Your task to perform on an android device: turn off picture-in-picture Image 0: 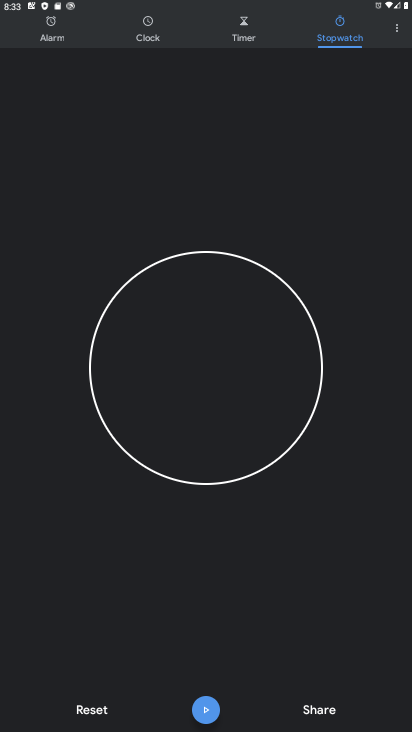
Step 0: press home button
Your task to perform on an android device: turn off picture-in-picture Image 1: 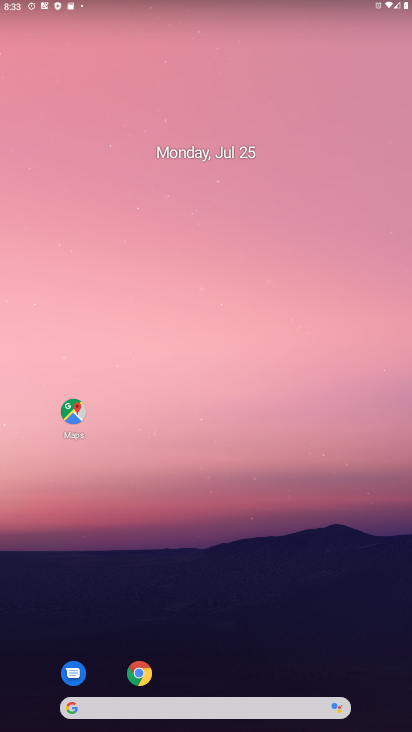
Step 1: drag from (313, 543) to (142, 11)
Your task to perform on an android device: turn off picture-in-picture Image 2: 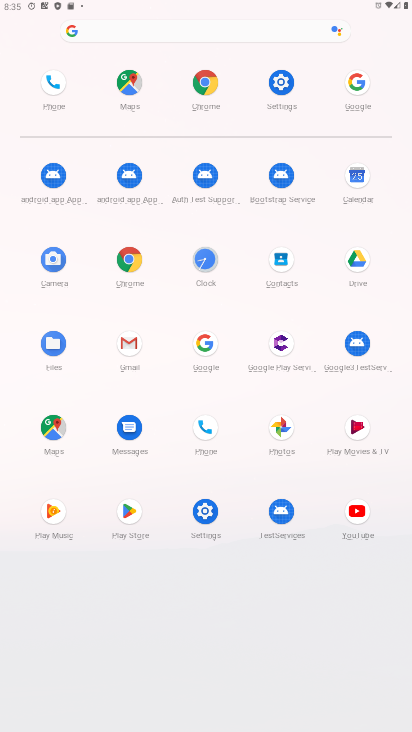
Step 2: click (143, 253)
Your task to perform on an android device: turn off picture-in-picture Image 3: 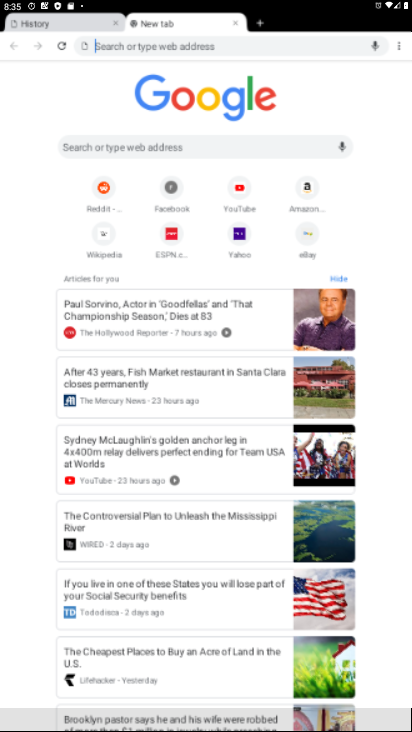
Step 3: task complete